Your task to perform on an android device: check battery use Image 0: 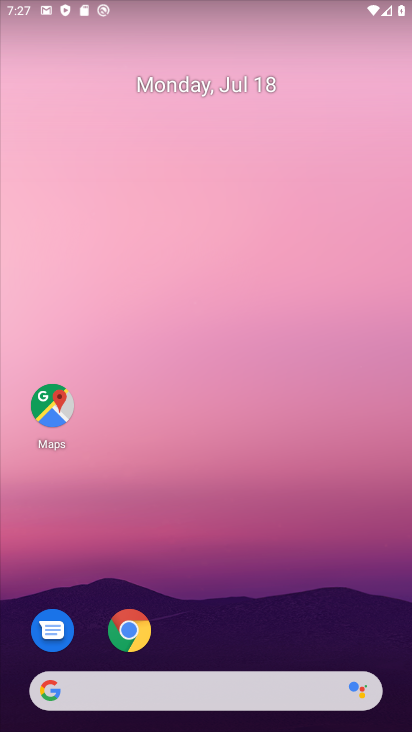
Step 0: press home button
Your task to perform on an android device: check battery use Image 1: 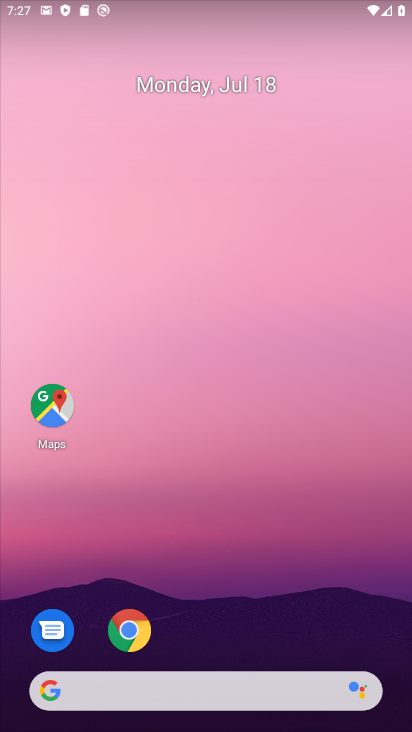
Step 1: drag from (253, 705) to (202, 74)
Your task to perform on an android device: check battery use Image 2: 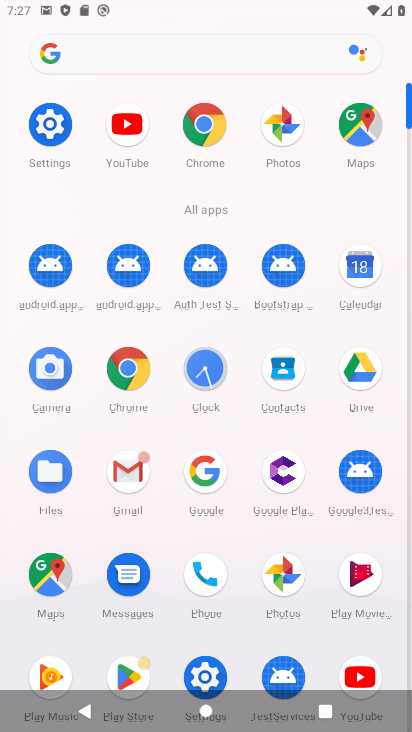
Step 2: drag from (56, 119) to (275, 625)
Your task to perform on an android device: check battery use Image 3: 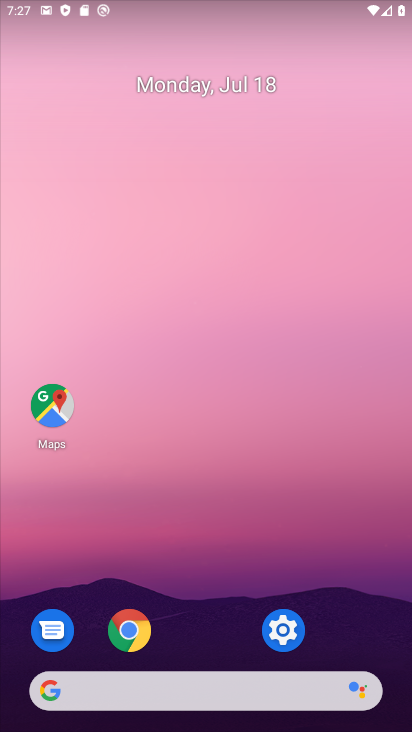
Step 3: click (283, 635)
Your task to perform on an android device: check battery use Image 4: 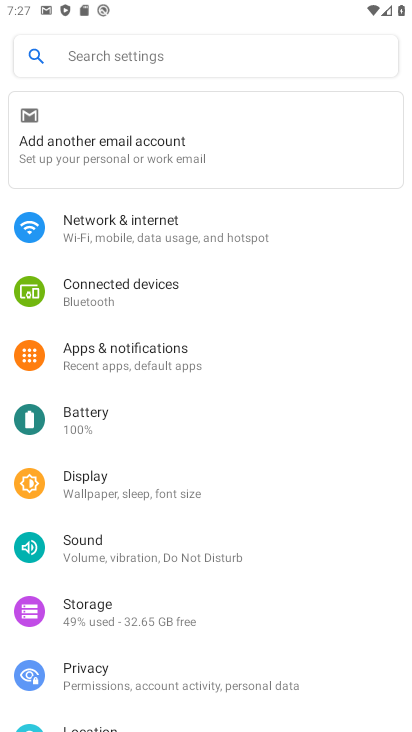
Step 4: click (109, 420)
Your task to perform on an android device: check battery use Image 5: 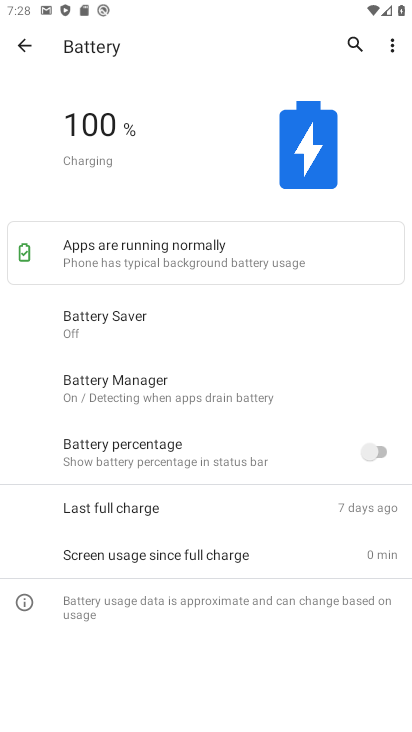
Step 5: task complete